Your task to perform on an android device: change the clock display to analog Image 0: 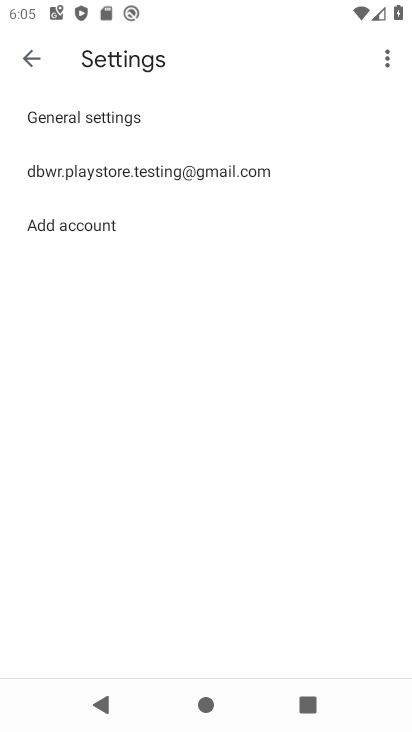
Step 0: press home button
Your task to perform on an android device: change the clock display to analog Image 1: 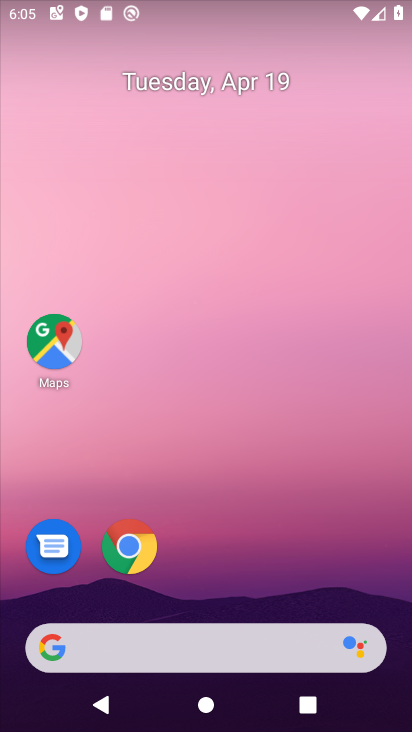
Step 1: drag from (270, 577) to (251, 103)
Your task to perform on an android device: change the clock display to analog Image 2: 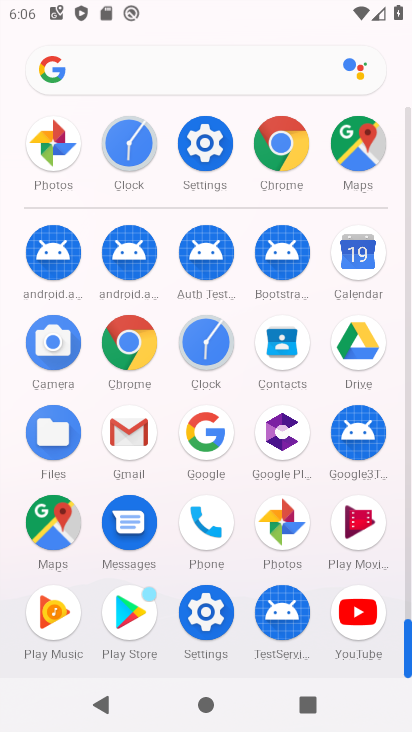
Step 2: click (210, 337)
Your task to perform on an android device: change the clock display to analog Image 3: 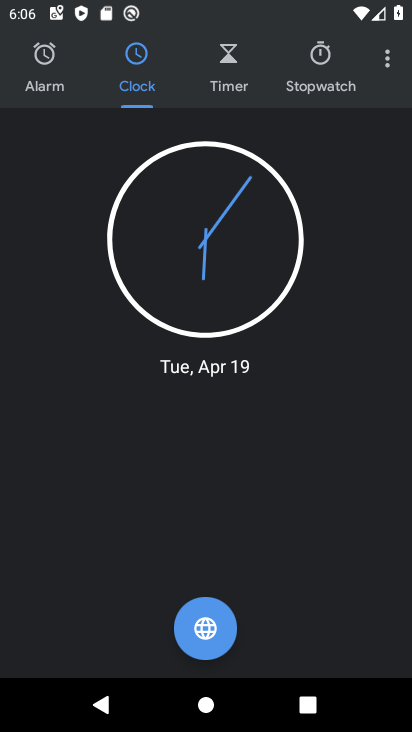
Step 3: click (390, 58)
Your task to perform on an android device: change the clock display to analog Image 4: 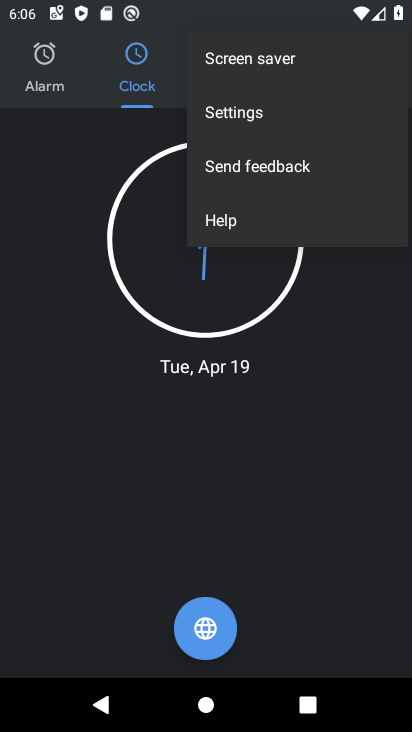
Step 4: click (247, 101)
Your task to perform on an android device: change the clock display to analog Image 5: 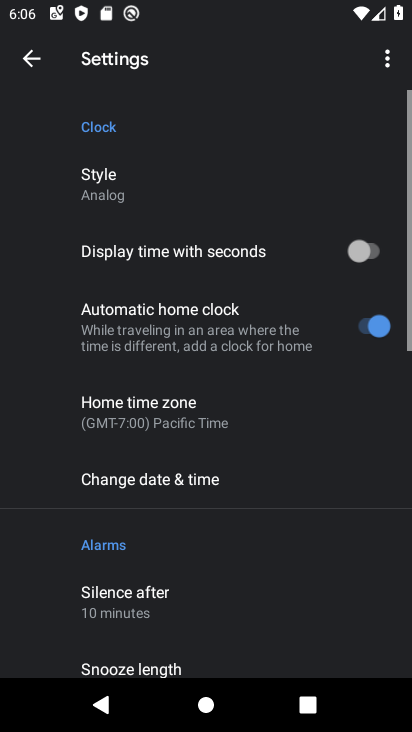
Step 5: click (97, 179)
Your task to perform on an android device: change the clock display to analog Image 6: 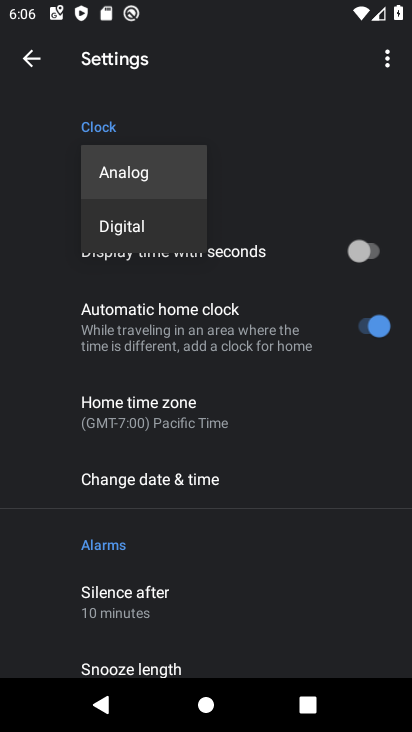
Step 6: task complete